Your task to perform on an android device: turn off smart reply in the gmail app Image 0: 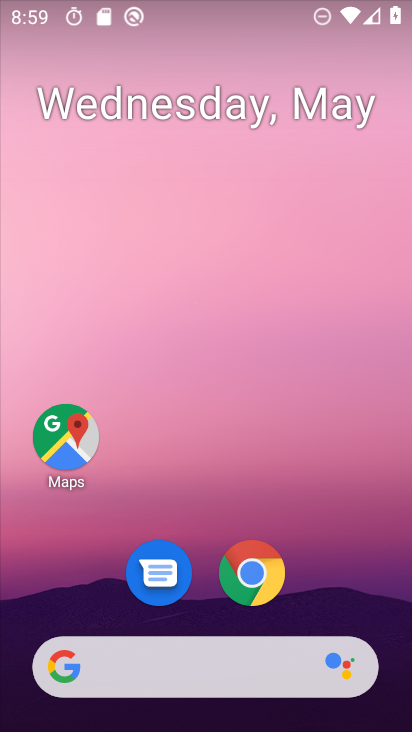
Step 0: drag from (390, 668) to (391, 232)
Your task to perform on an android device: turn off smart reply in the gmail app Image 1: 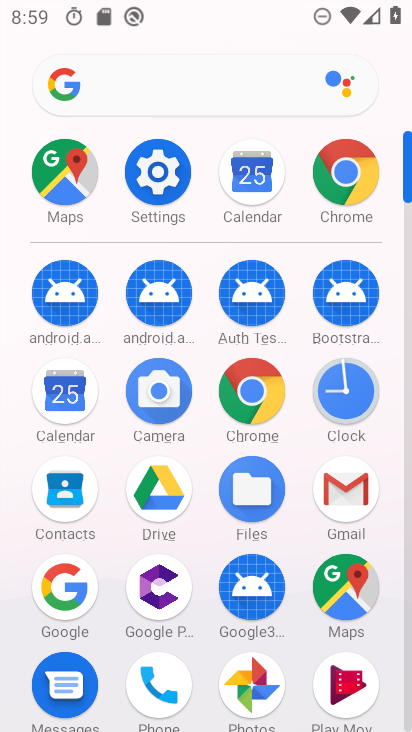
Step 1: click (345, 495)
Your task to perform on an android device: turn off smart reply in the gmail app Image 2: 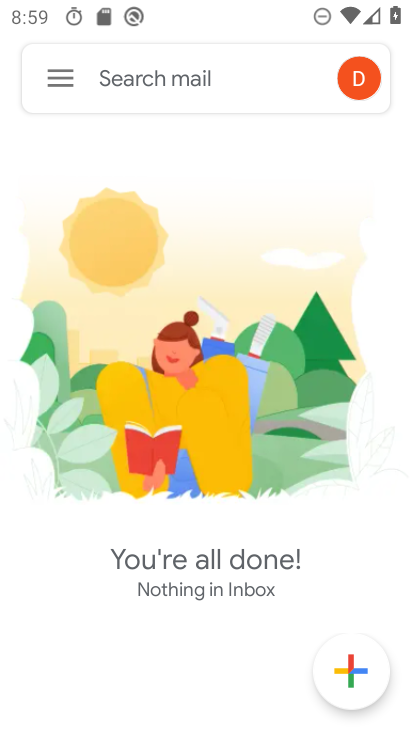
Step 2: click (65, 69)
Your task to perform on an android device: turn off smart reply in the gmail app Image 3: 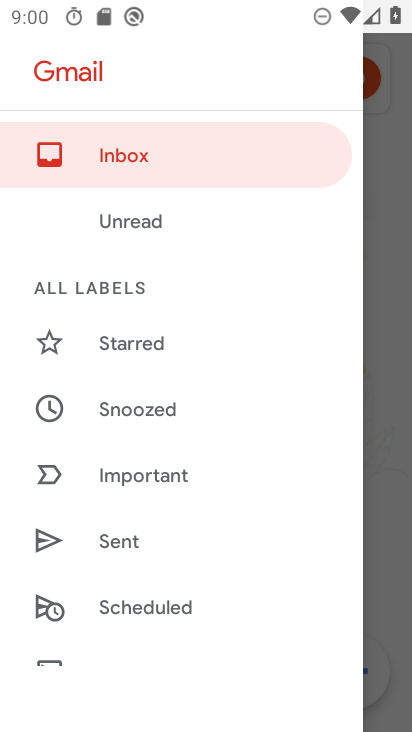
Step 3: drag from (264, 624) to (277, 323)
Your task to perform on an android device: turn off smart reply in the gmail app Image 4: 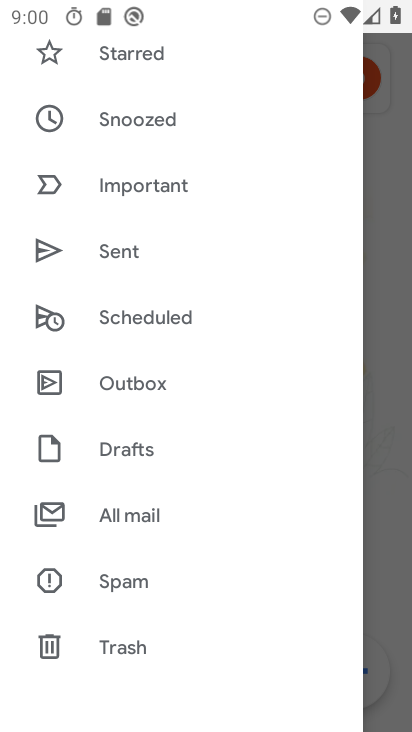
Step 4: drag from (278, 561) to (275, 326)
Your task to perform on an android device: turn off smart reply in the gmail app Image 5: 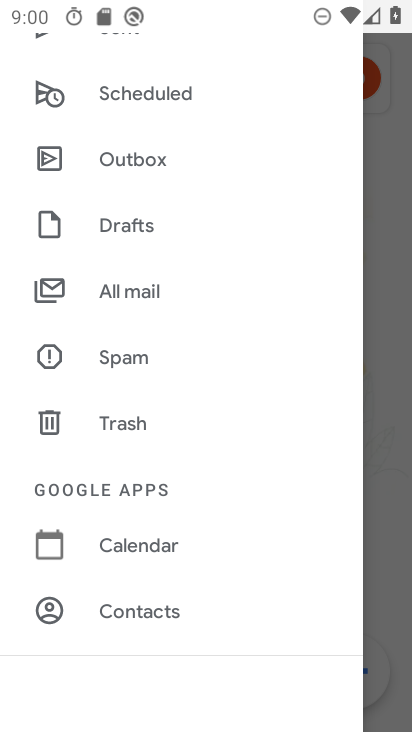
Step 5: drag from (252, 594) to (267, 321)
Your task to perform on an android device: turn off smart reply in the gmail app Image 6: 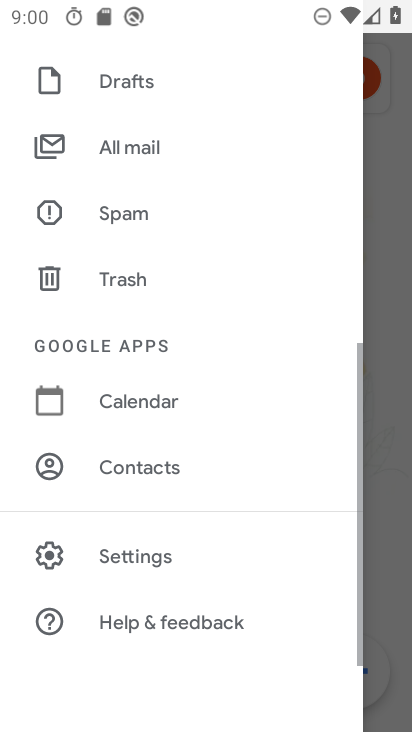
Step 6: click (107, 547)
Your task to perform on an android device: turn off smart reply in the gmail app Image 7: 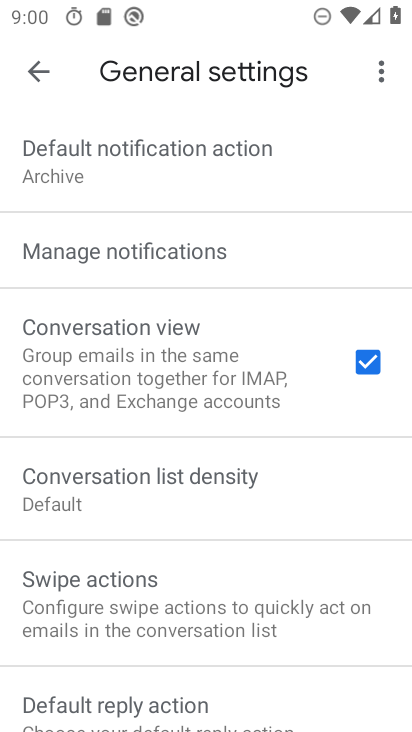
Step 7: click (41, 67)
Your task to perform on an android device: turn off smart reply in the gmail app Image 8: 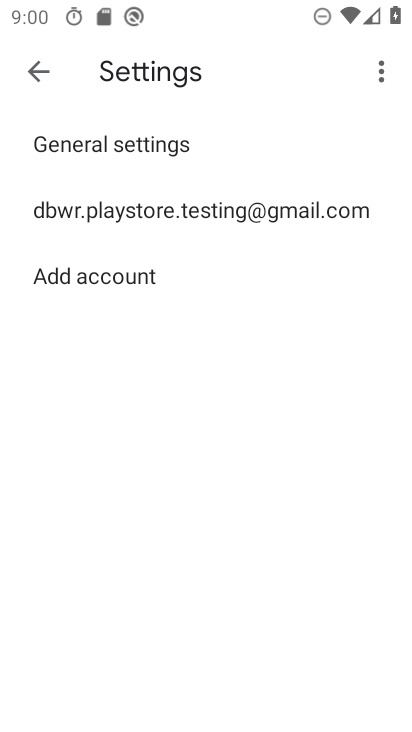
Step 8: click (97, 209)
Your task to perform on an android device: turn off smart reply in the gmail app Image 9: 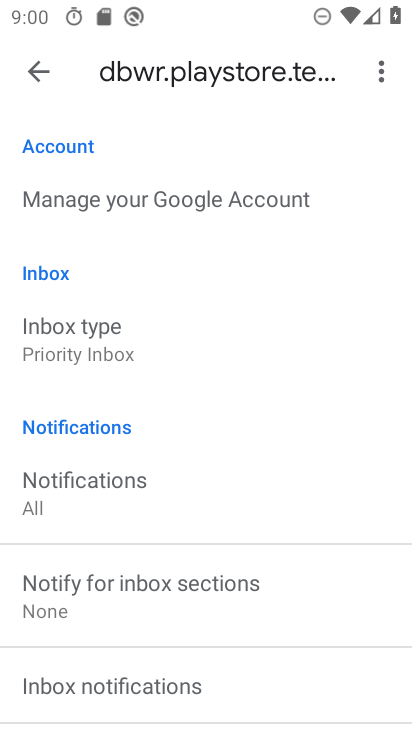
Step 9: drag from (310, 635) to (336, 364)
Your task to perform on an android device: turn off smart reply in the gmail app Image 10: 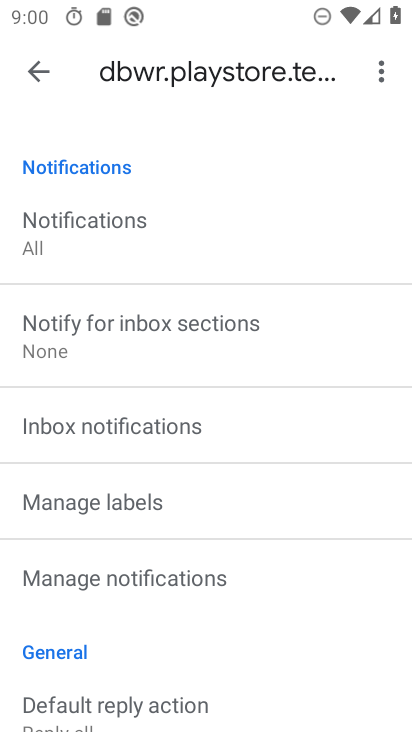
Step 10: drag from (301, 682) to (304, 359)
Your task to perform on an android device: turn off smart reply in the gmail app Image 11: 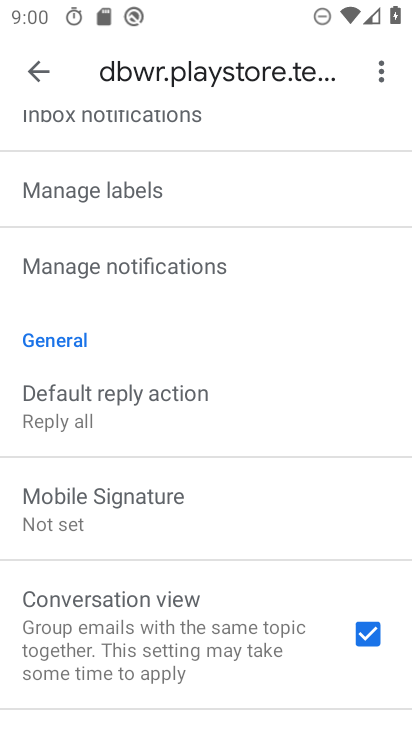
Step 11: drag from (302, 673) to (312, 375)
Your task to perform on an android device: turn off smart reply in the gmail app Image 12: 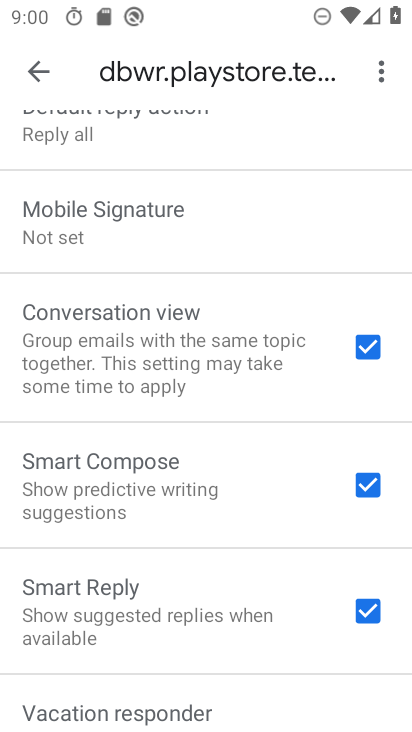
Step 12: drag from (247, 655) to (253, 442)
Your task to perform on an android device: turn off smart reply in the gmail app Image 13: 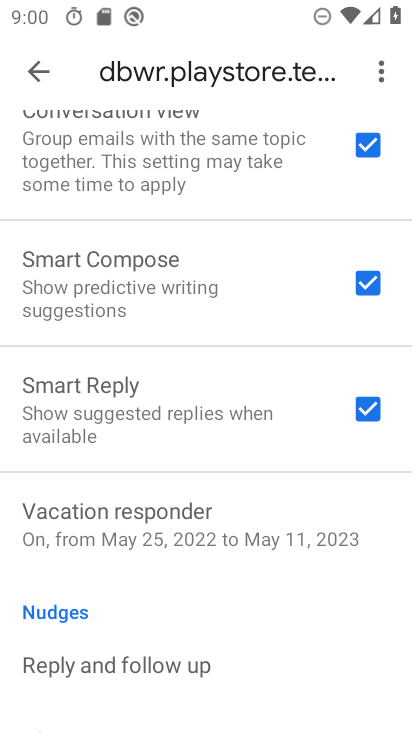
Step 13: click (357, 411)
Your task to perform on an android device: turn off smart reply in the gmail app Image 14: 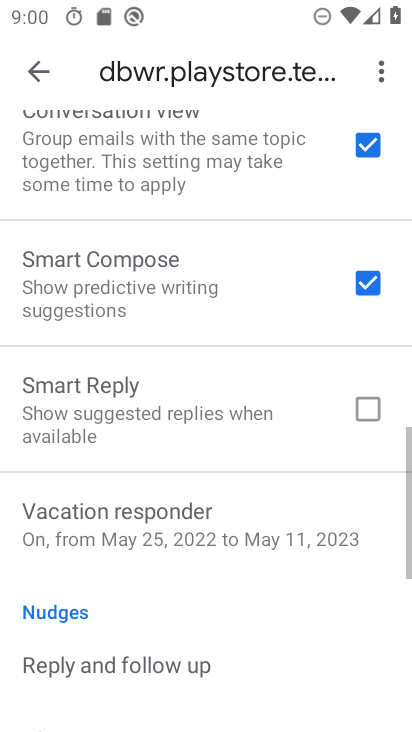
Step 14: task complete